Your task to perform on an android device: find snoozed emails in the gmail app Image 0: 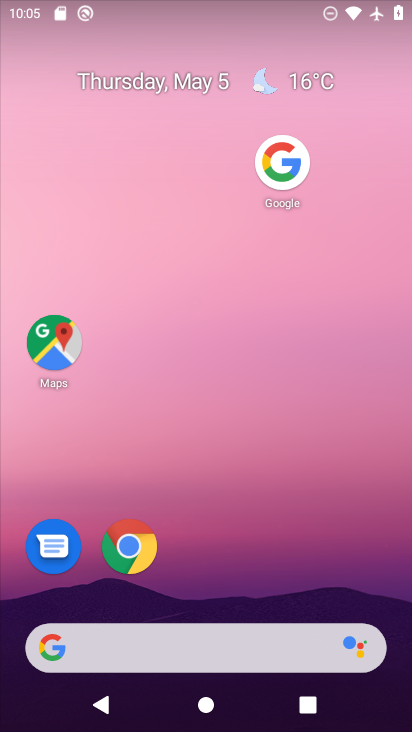
Step 0: drag from (179, 649) to (323, 160)
Your task to perform on an android device: find snoozed emails in the gmail app Image 1: 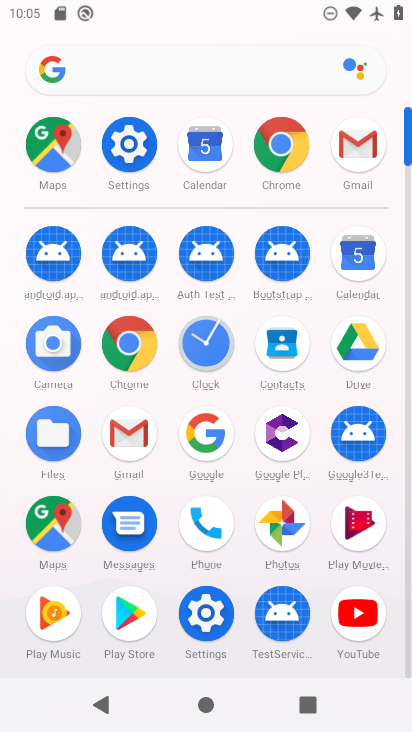
Step 1: click (353, 144)
Your task to perform on an android device: find snoozed emails in the gmail app Image 2: 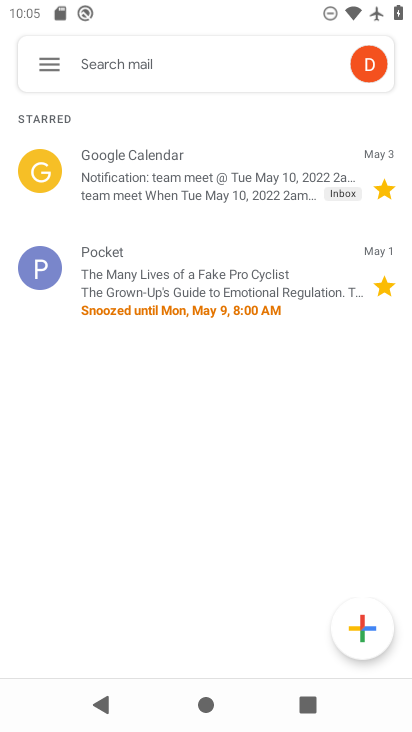
Step 2: click (47, 73)
Your task to perform on an android device: find snoozed emails in the gmail app Image 3: 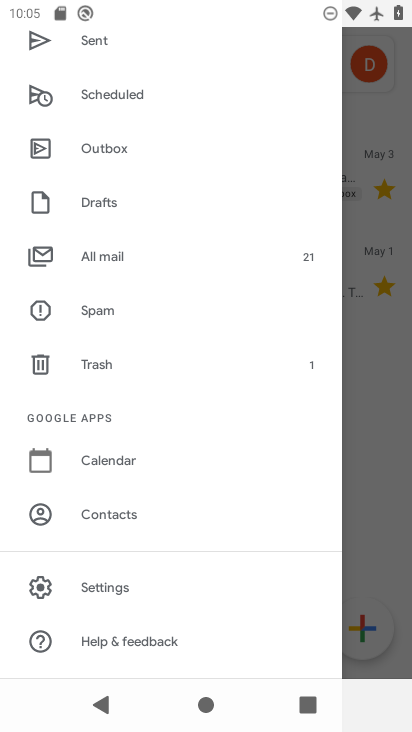
Step 3: drag from (193, 134) to (180, 450)
Your task to perform on an android device: find snoozed emails in the gmail app Image 4: 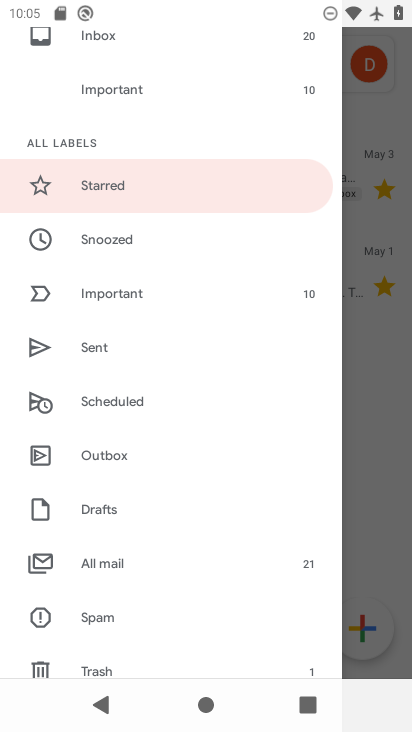
Step 4: click (118, 237)
Your task to perform on an android device: find snoozed emails in the gmail app Image 5: 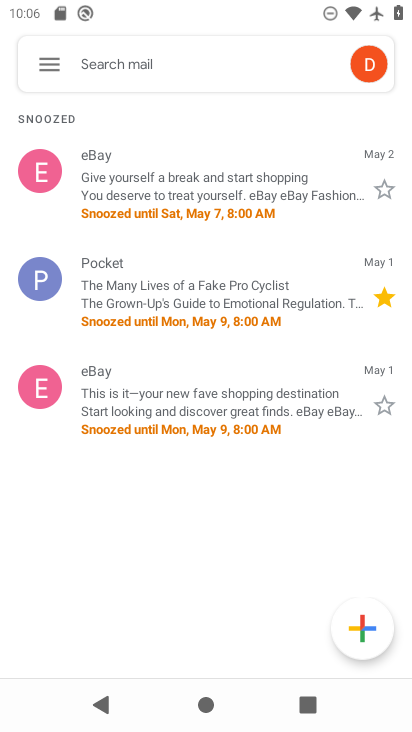
Step 5: task complete